Your task to perform on an android device: stop showing notifications on the lock screen Image 0: 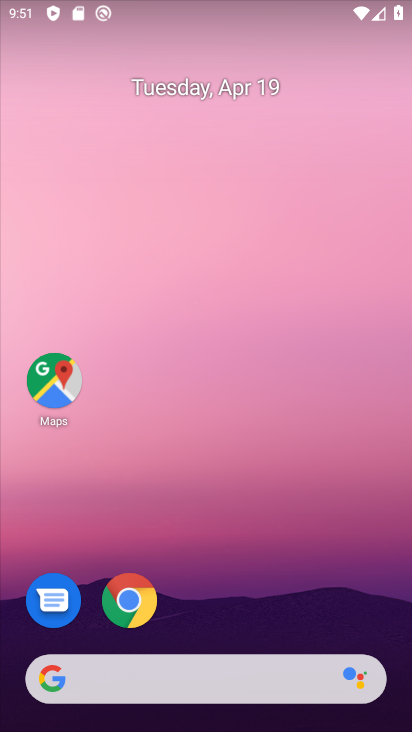
Step 0: drag from (308, 613) to (263, 130)
Your task to perform on an android device: stop showing notifications on the lock screen Image 1: 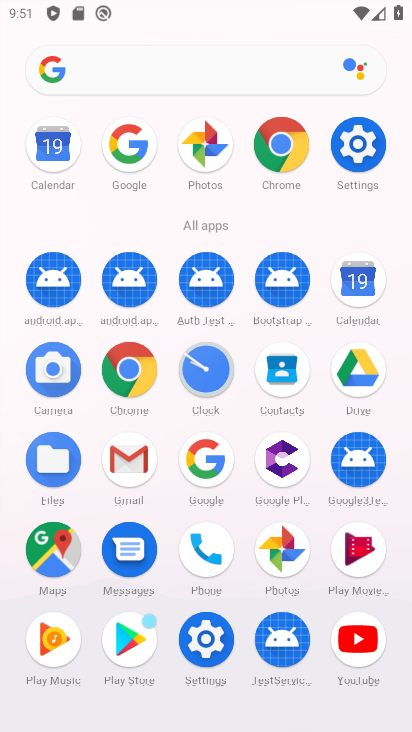
Step 1: click (354, 144)
Your task to perform on an android device: stop showing notifications on the lock screen Image 2: 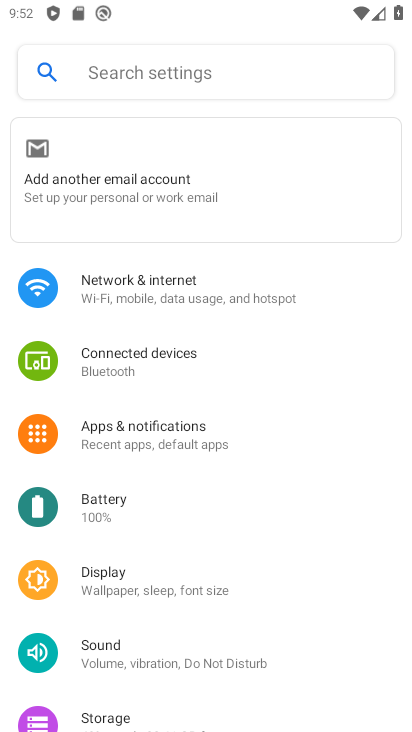
Step 2: click (221, 438)
Your task to perform on an android device: stop showing notifications on the lock screen Image 3: 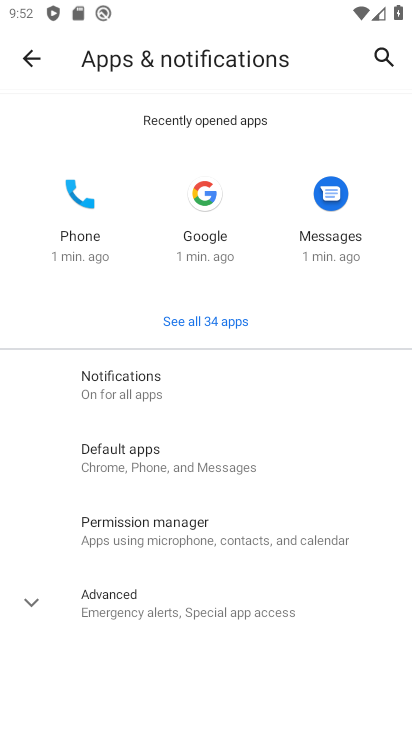
Step 3: click (220, 403)
Your task to perform on an android device: stop showing notifications on the lock screen Image 4: 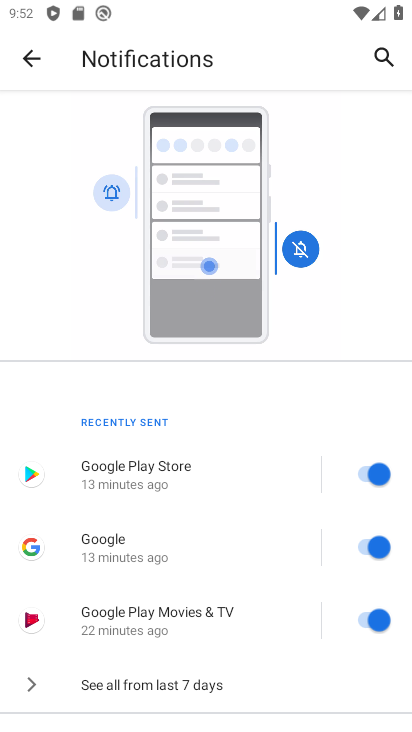
Step 4: drag from (152, 690) to (224, 171)
Your task to perform on an android device: stop showing notifications on the lock screen Image 5: 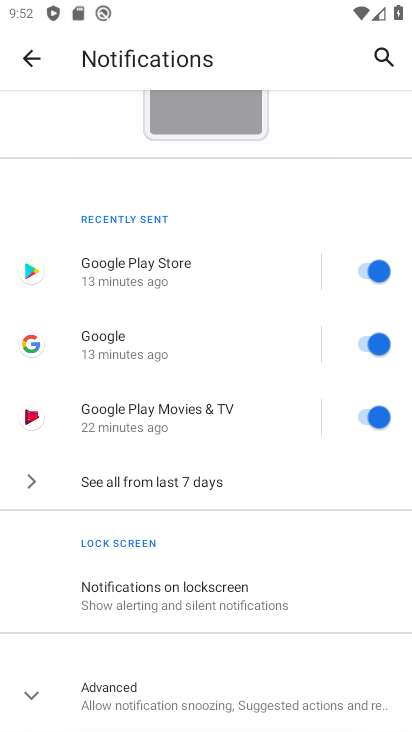
Step 5: click (190, 601)
Your task to perform on an android device: stop showing notifications on the lock screen Image 6: 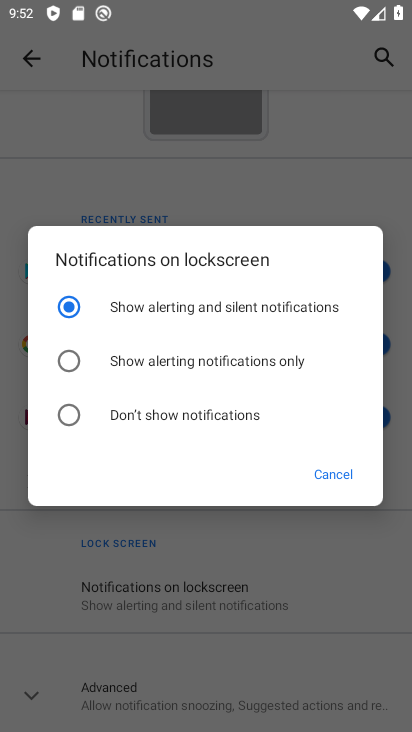
Step 6: click (120, 414)
Your task to perform on an android device: stop showing notifications on the lock screen Image 7: 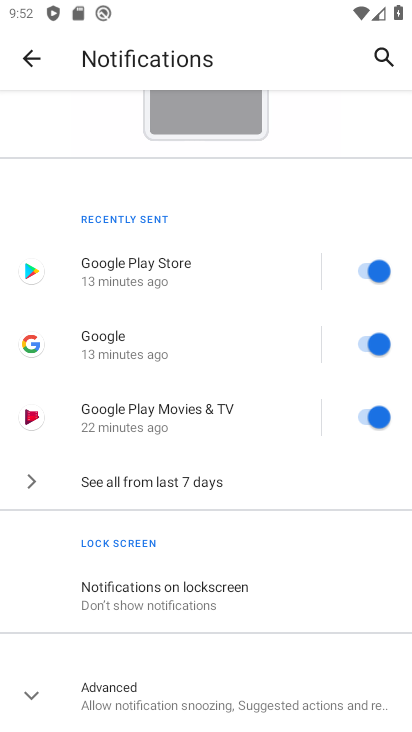
Step 7: task complete